Your task to perform on an android device: delete the emails in spam in the gmail app Image 0: 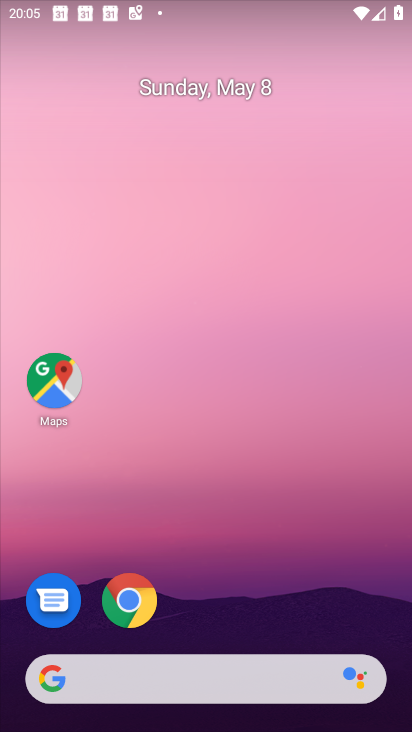
Step 0: drag from (300, 705) to (276, 241)
Your task to perform on an android device: delete the emails in spam in the gmail app Image 1: 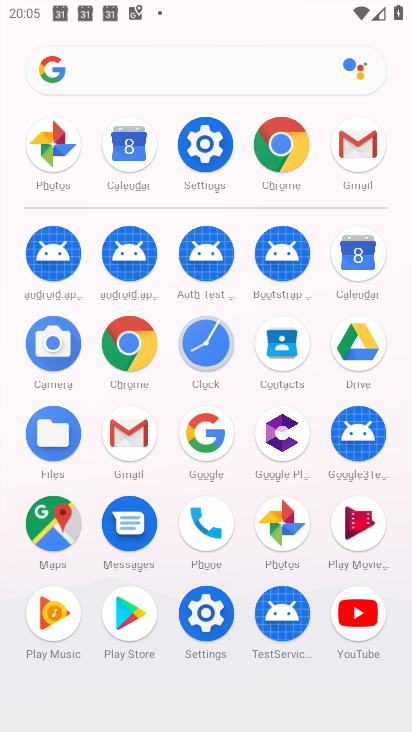
Step 1: click (349, 149)
Your task to perform on an android device: delete the emails in spam in the gmail app Image 2: 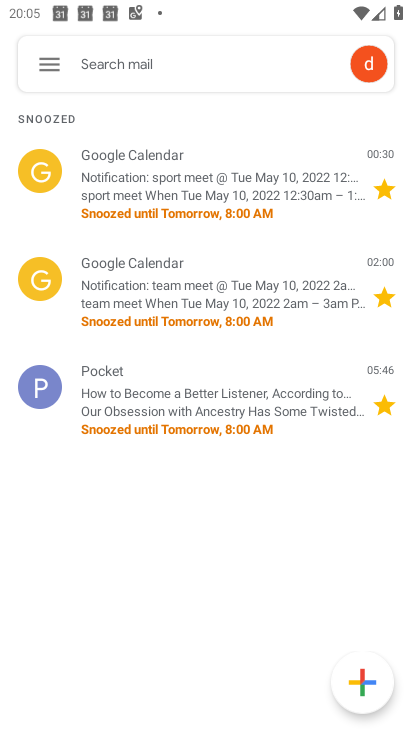
Step 2: click (207, 277)
Your task to perform on an android device: delete the emails in spam in the gmail app Image 3: 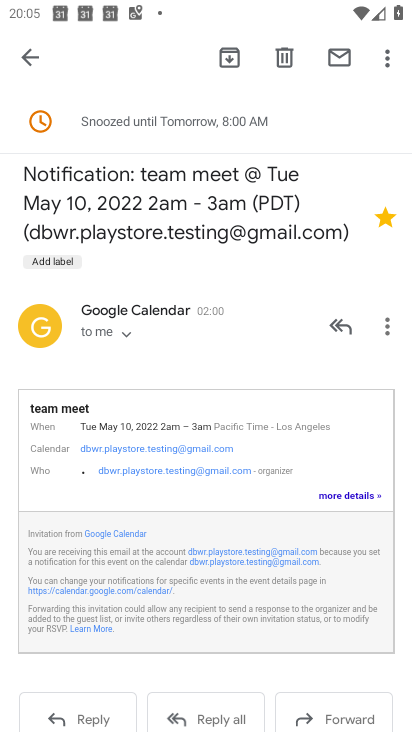
Step 3: click (31, 65)
Your task to perform on an android device: delete the emails in spam in the gmail app Image 4: 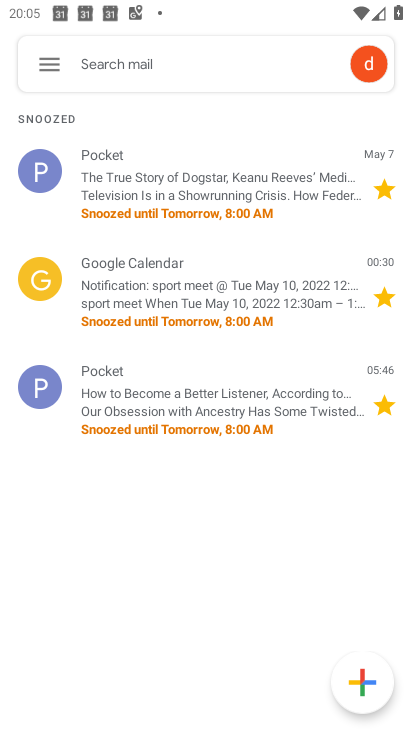
Step 4: click (31, 77)
Your task to perform on an android device: delete the emails in spam in the gmail app Image 5: 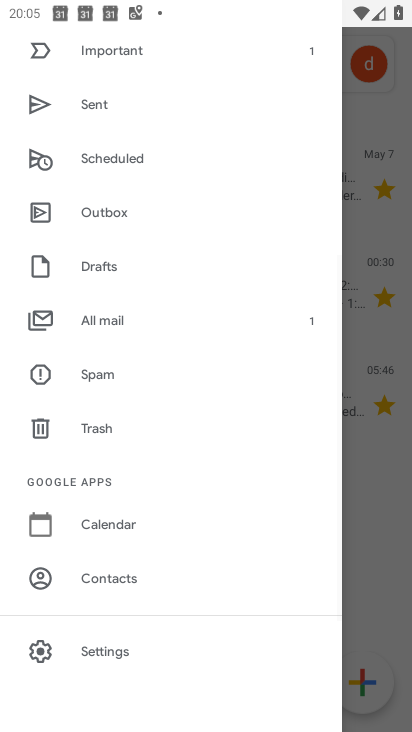
Step 5: click (113, 369)
Your task to perform on an android device: delete the emails in spam in the gmail app Image 6: 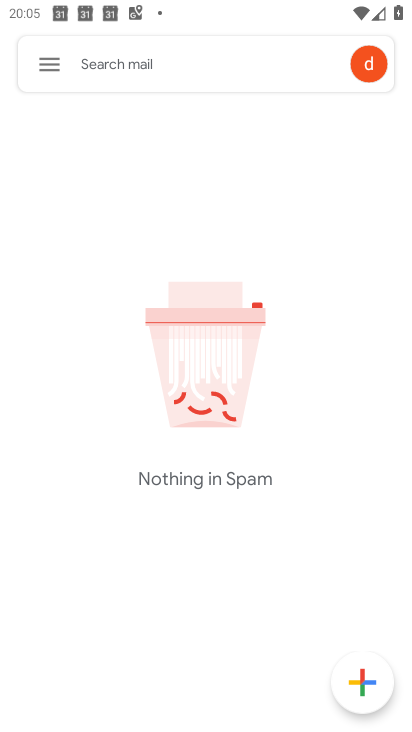
Step 6: task complete